Your task to perform on an android device: Open the stopwatch Image 0: 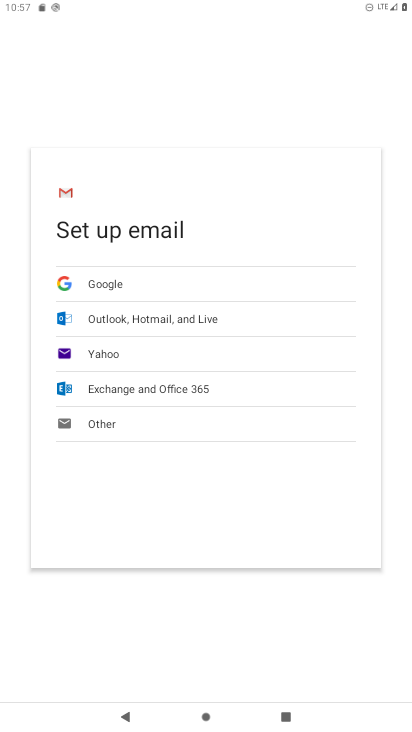
Step 0: press home button
Your task to perform on an android device: Open the stopwatch Image 1: 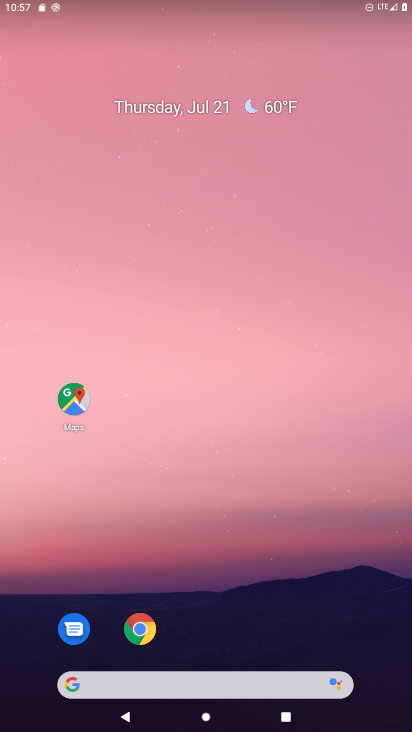
Step 1: drag from (271, 597) to (286, 91)
Your task to perform on an android device: Open the stopwatch Image 2: 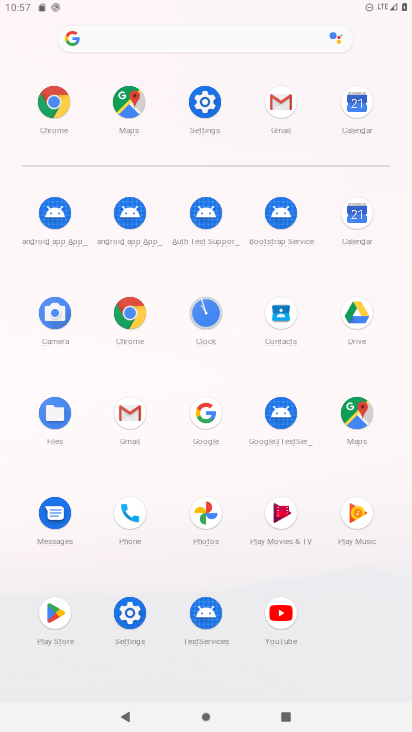
Step 2: click (210, 309)
Your task to perform on an android device: Open the stopwatch Image 3: 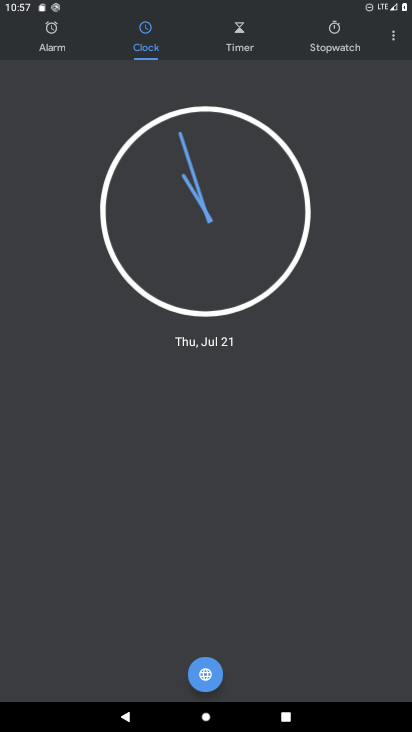
Step 3: click (324, 28)
Your task to perform on an android device: Open the stopwatch Image 4: 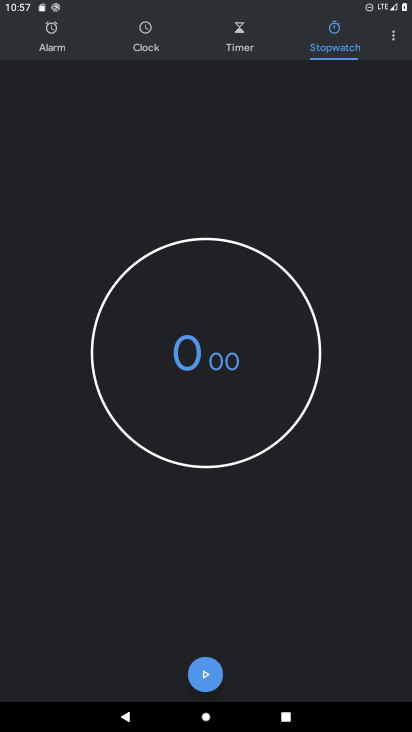
Step 4: task complete